Your task to perform on an android device: snooze an email in the gmail app Image 0: 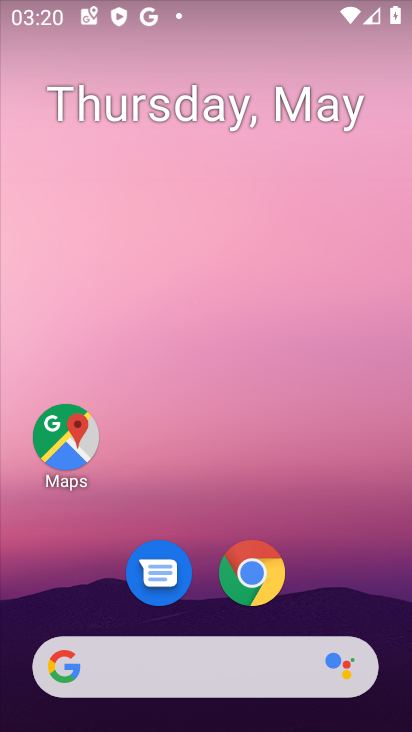
Step 0: drag from (345, 595) to (312, 277)
Your task to perform on an android device: snooze an email in the gmail app Image 1: 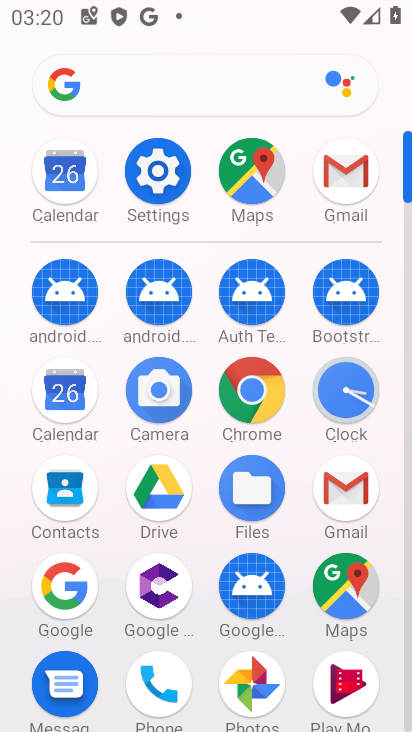
Step 1: click (355, 485)
Your task to perform on an android device: snooze an email in the gmail app Image 2: 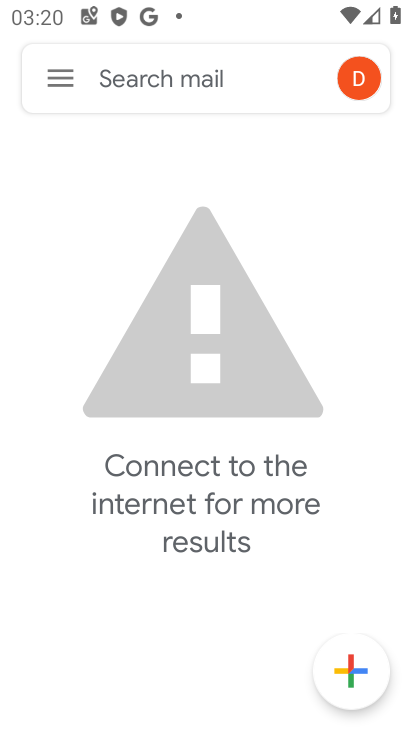
Step 2: click (63, 71)
Your task to perform on an android device: snooze an email in the gmail app Image 3: 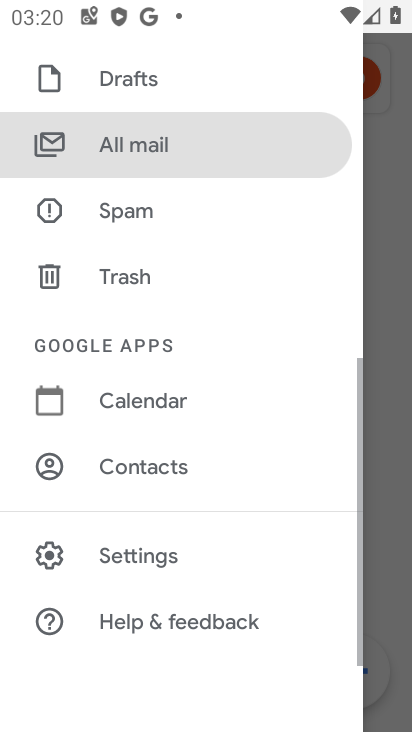
Step 3: drag from (207, 239) to (209, 581)
Your task to perform on an android device: snooze an email in the gmail app Image 4: 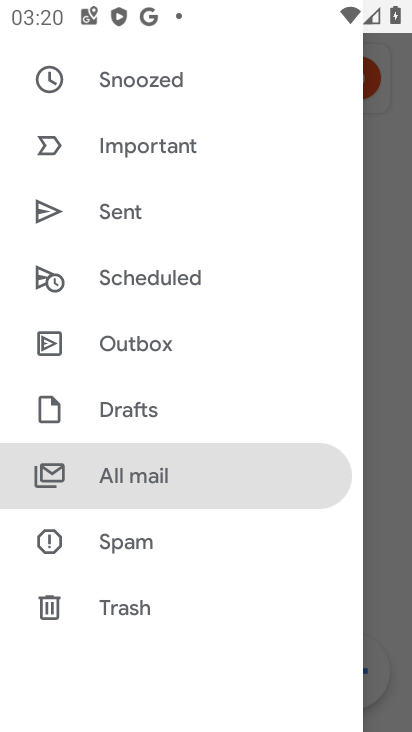
Step 4: click (157, 82)
Your task to perform on an android device: snooze an email in the gmail app Image 5: 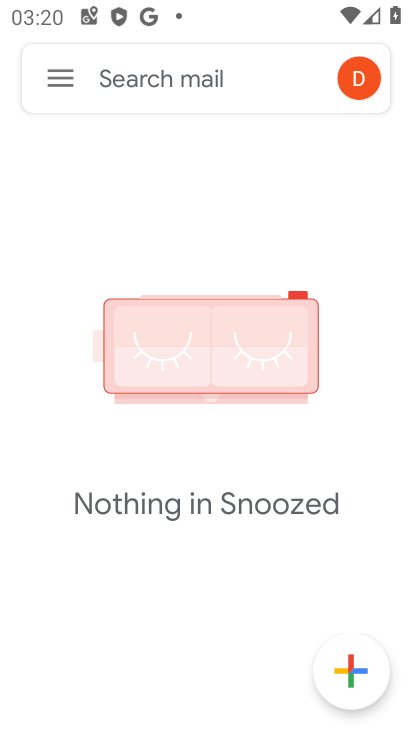
Step 5: task complete